Your task to perform on an android device: turn notification dots on Image 0: 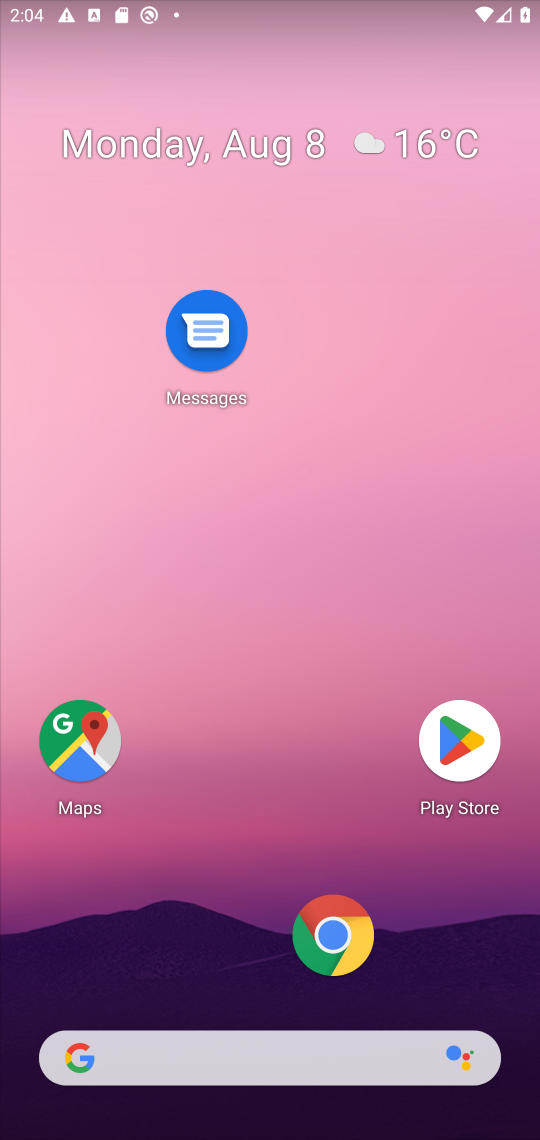
Step 0: drag from (228, 1059) to (236, 105)
Your task to perform on an android device: turn notification dots on Image 1: 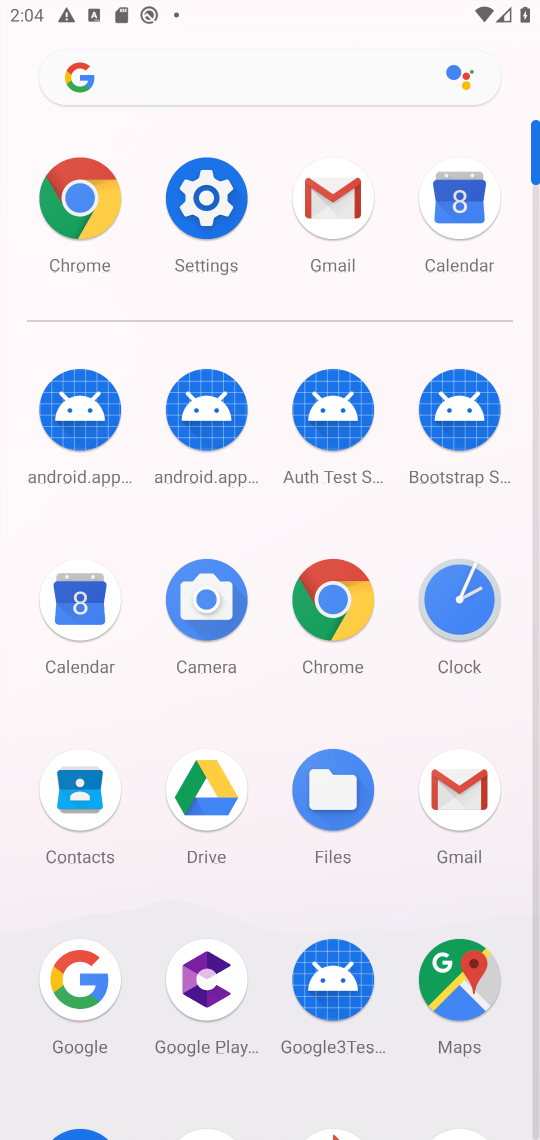
Step 1: click (228, 210)
Your task to perform on an android device: turn notification dots on Image 2: 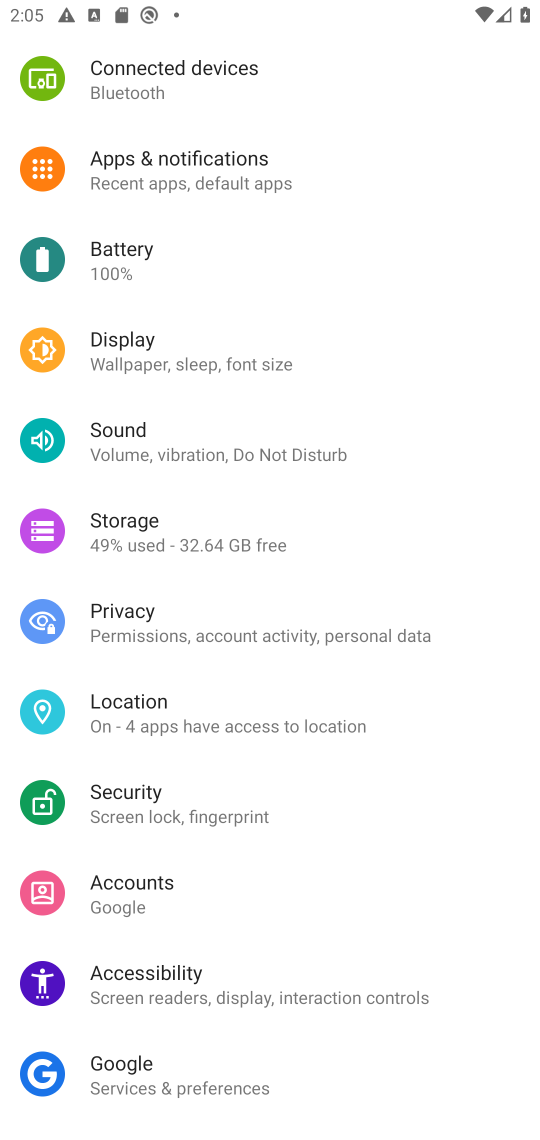
Step 2: click (156, 194)
Your task to perform on an android device: turn notification dots on Image 3: 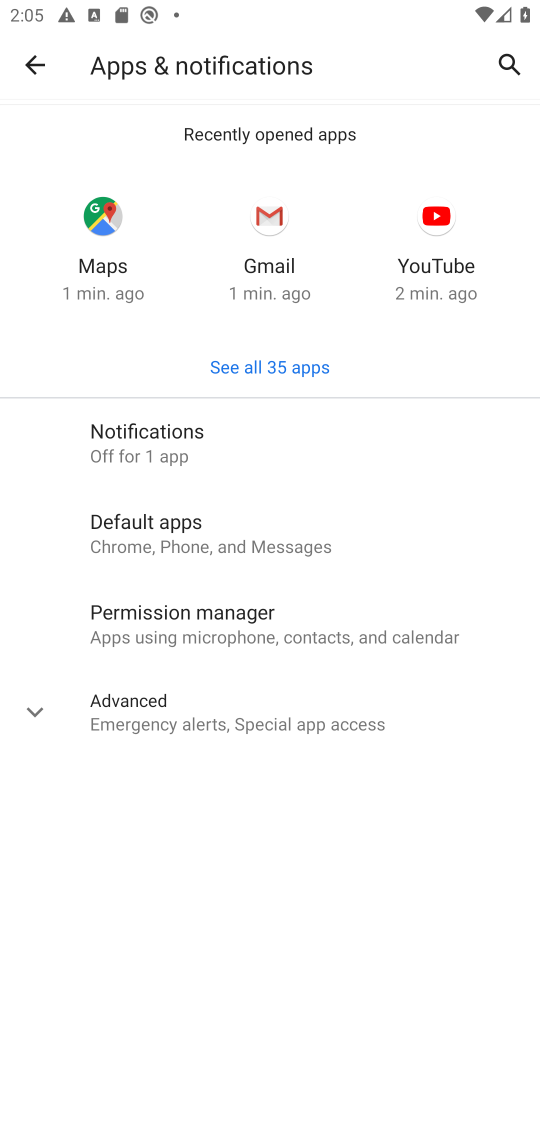
Step 3: click (181, 442)
Your task to perform on an android device: turn notification dots on Image 4: 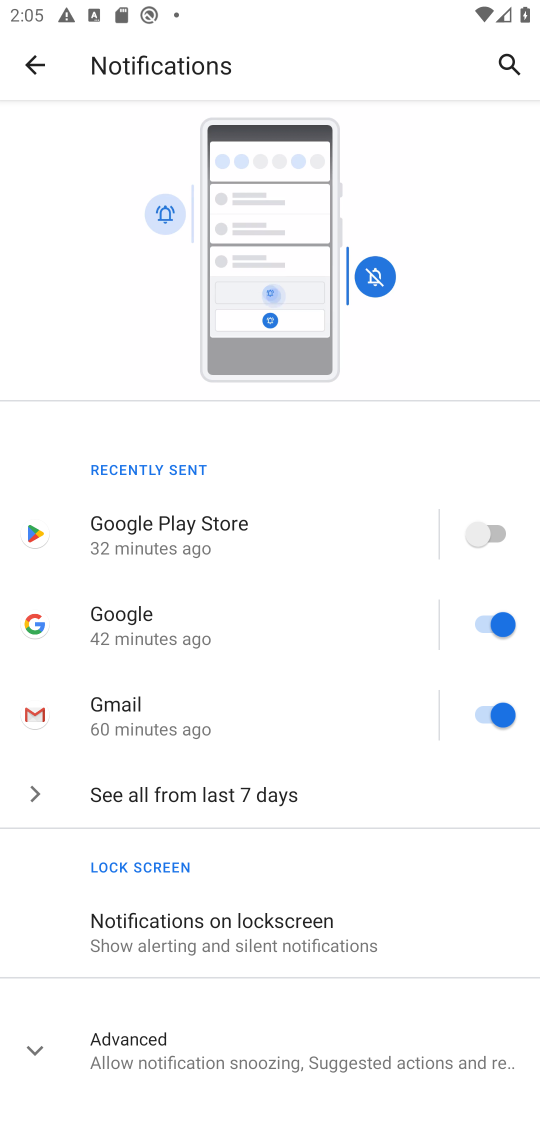
Step 4: click (181, 1051)
Your task to perform on an android device: turn notification dots on Image 5: 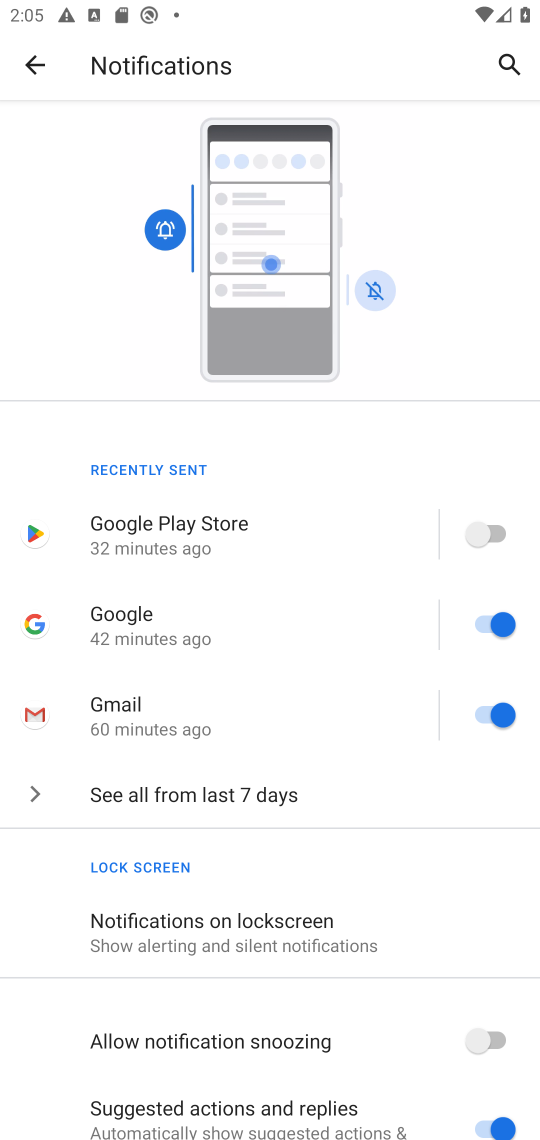
Step 5: task complete